Your task to perform on an android device: check data usage Image 0: 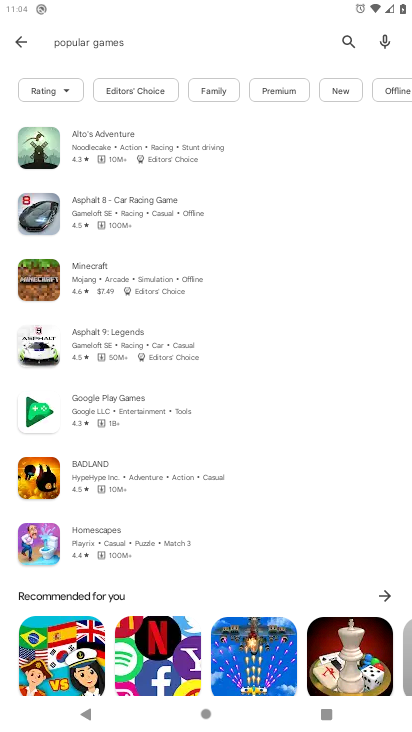
Step 0: press home button
Your task to perform on an android device: check data usage Image 1: 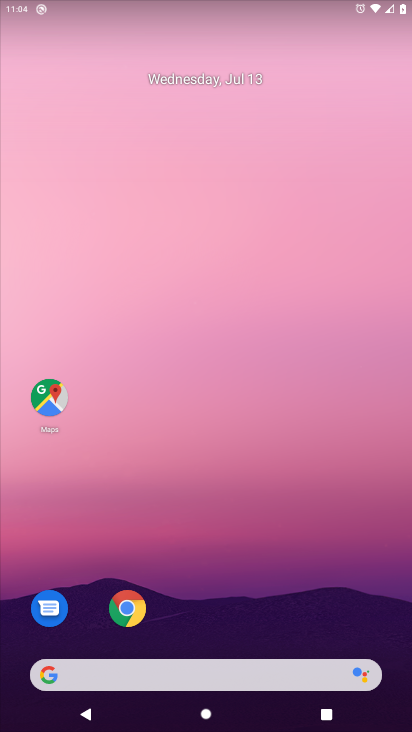
Step 1: drag from (71, 671) to (278, 232)
Your task to perform on an android device: check data usage Image 2: 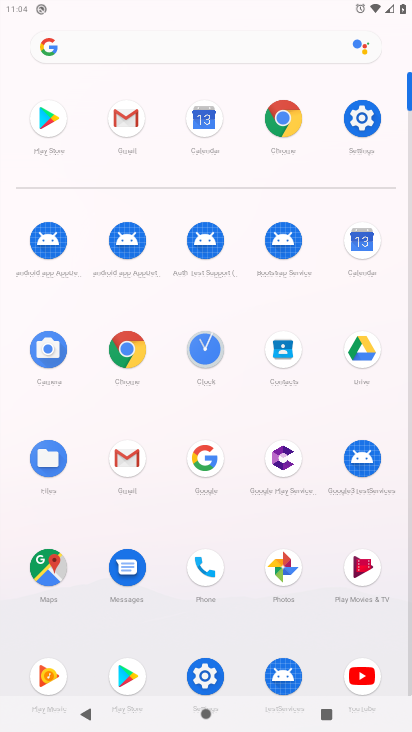
Step 2: click (202, 686)
Your task to perform on an android device: check data usage Image 3: 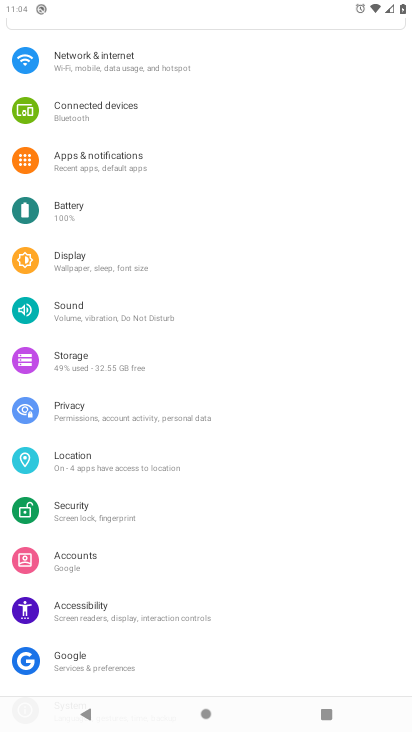
Step 3: click (137, 63)
Your task to perform on an android device: check data usage Image 4: 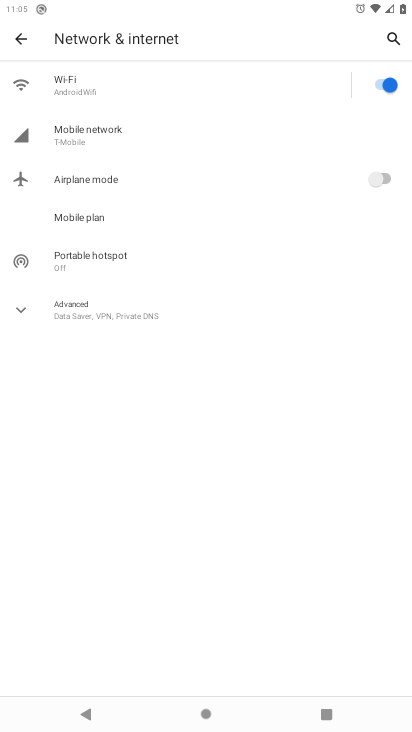
Step 4: click (116, 316)
Your task to perform on an android device: check data usage Image 5: 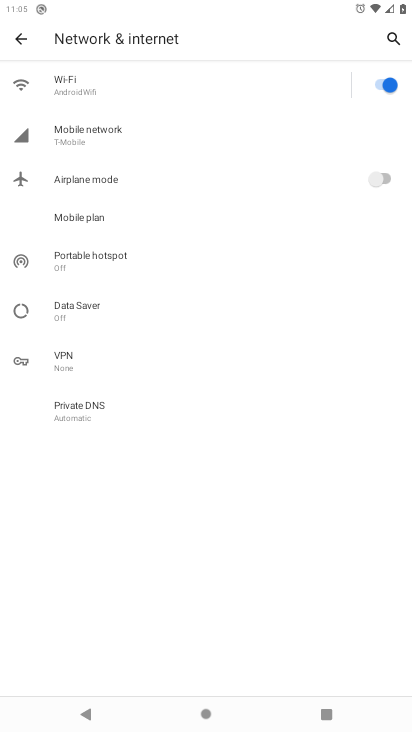
Step 5: click (99, 127)
Your task to perform on an android device: check data usage Image 6: 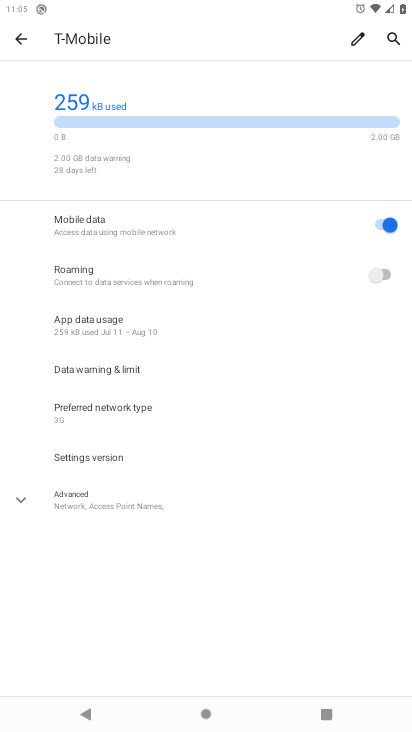
Step 6: task complete